Your task to perform on an android device: make emails show in primary in the gmail app Image 0: 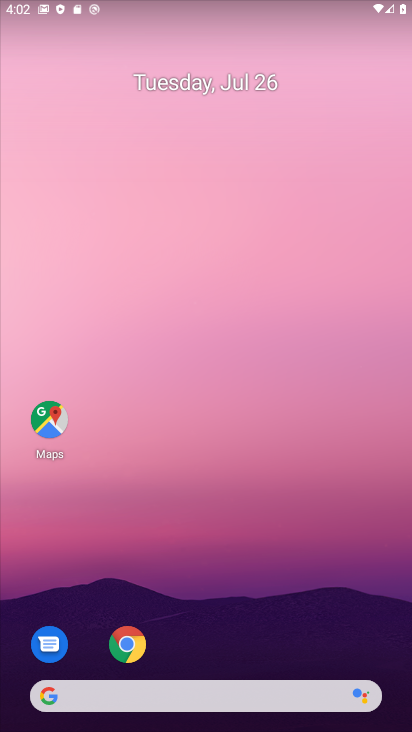
Step 0: drag from (399, 681) to (354, 296)
Your task to perform on an android device: make emails show in primary in the gmail app Image 1: 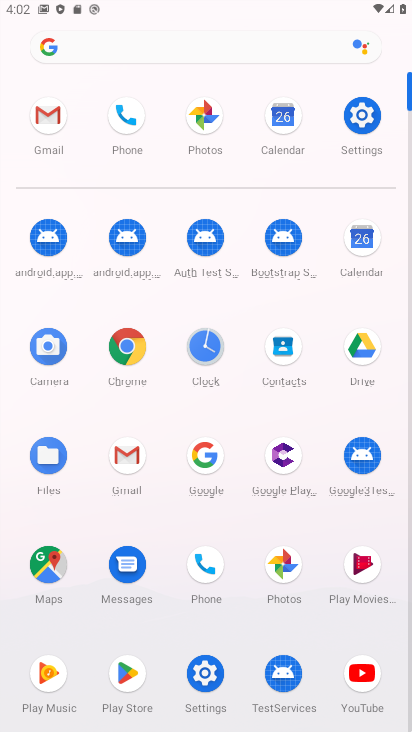
Step 1: click (127, 456)
Your task to perform on an android device: make emails show in primary in the gmail app Image 2: 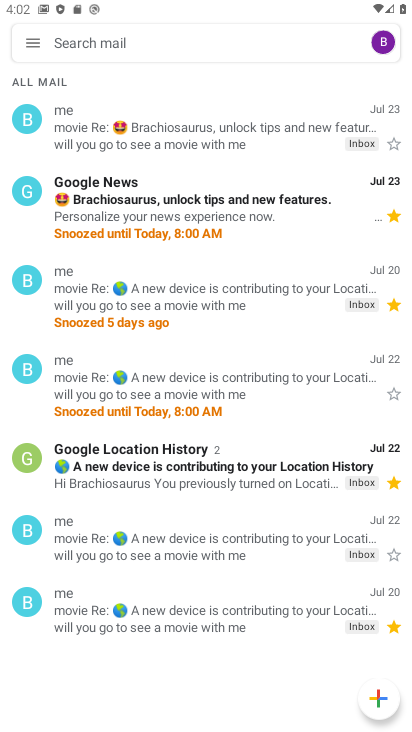
Step 2: click (34, 46)
Your task to perform on an android device: make emails show in primary in the gmail app Image 3: 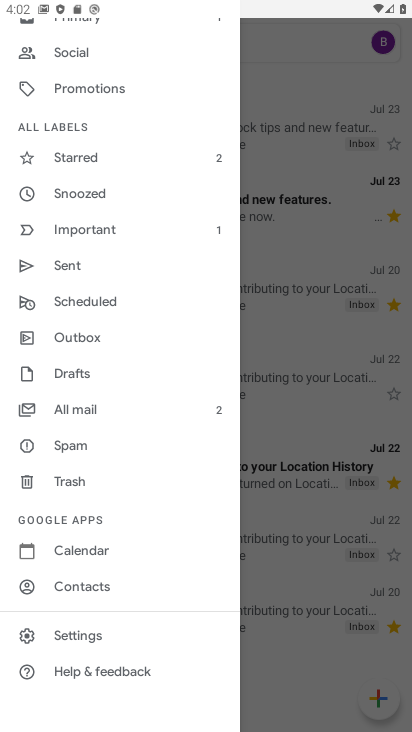
Step 3: drag from (148, 345) to (159, 570)
Your task to perform on an android device: make emails show in primary in the gmail app Image 4: 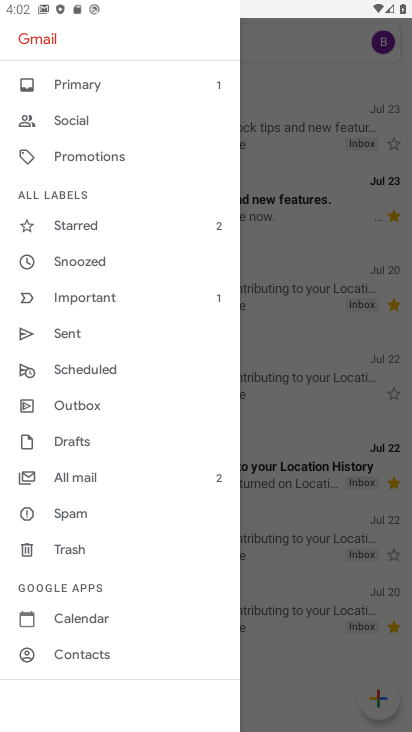
Step 4: click (74, 81)
Your task to perform on an android device: make emails show in primary in the gmail app Image 5: 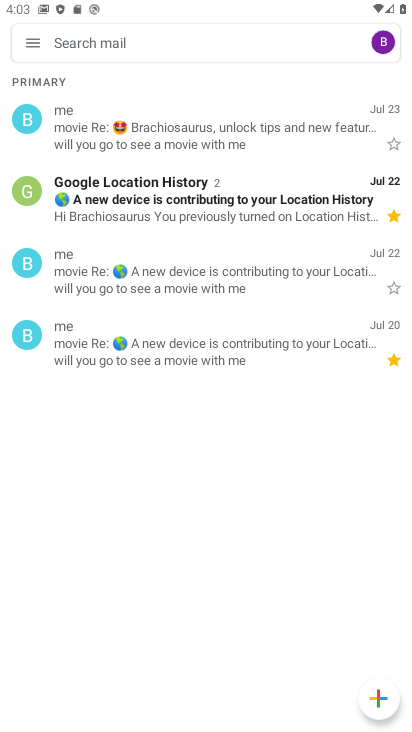
Step 5: task complete